Your task to perform on an android device: install app "Mercado Libre" Image 0: 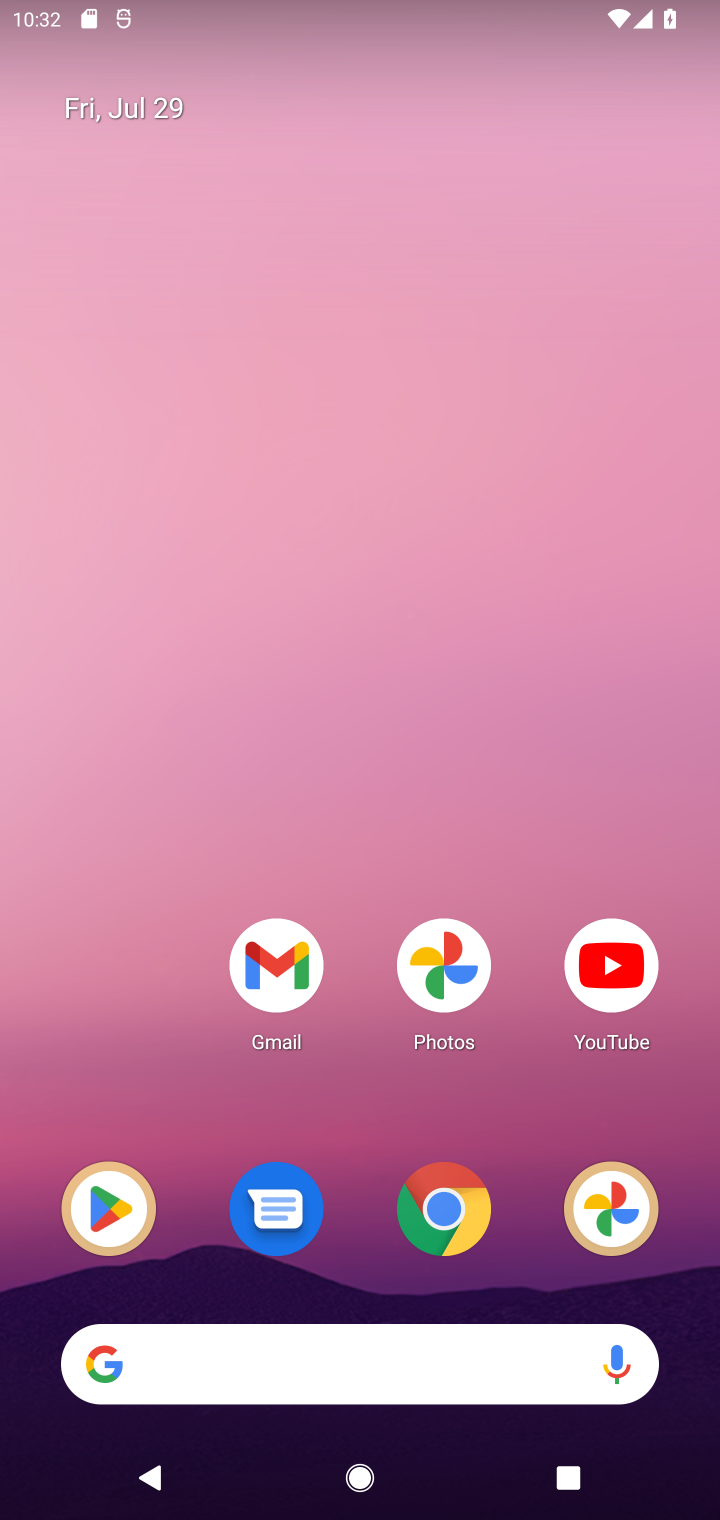
Step 0: drag from (521, 946) to (488, 182)
Your task to perform on an android device: install app "Mercado Libre" Image 1: 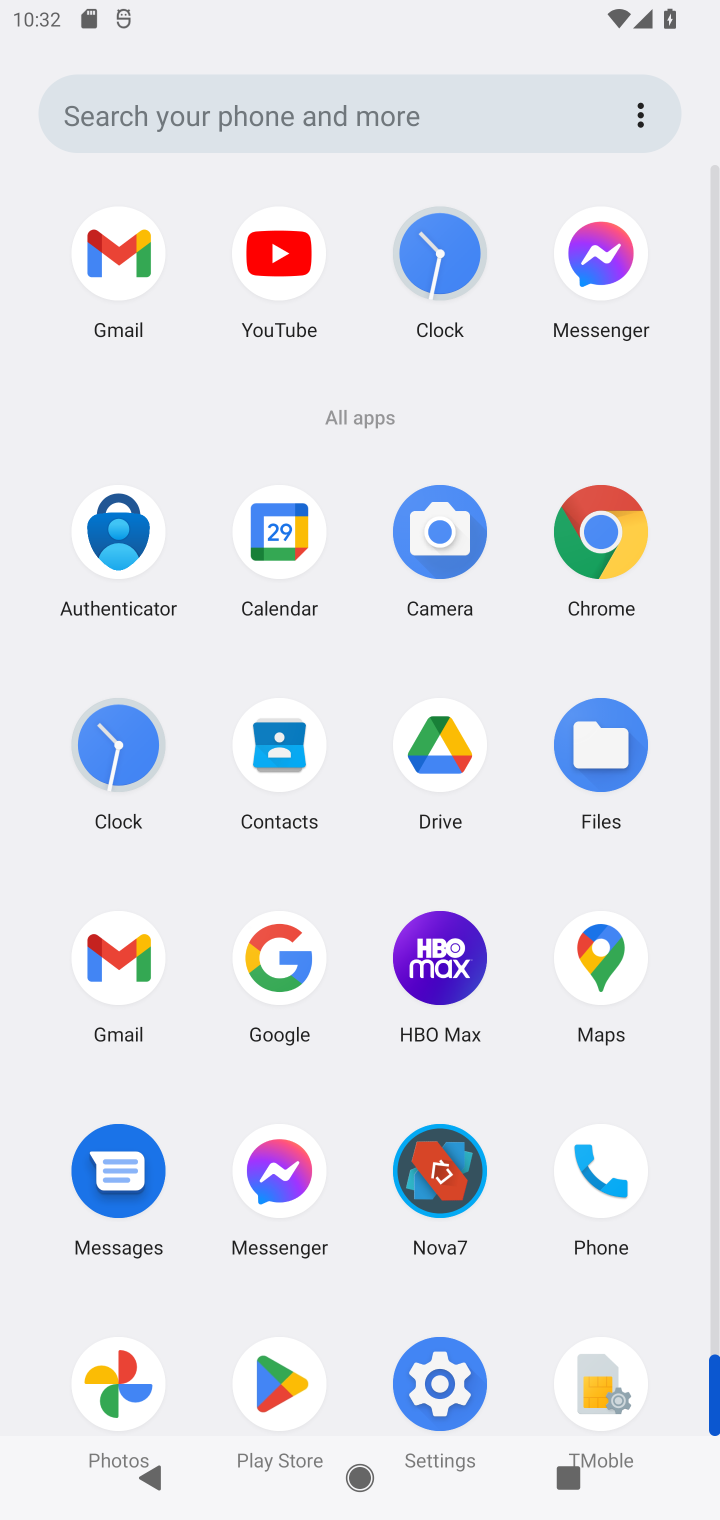
Step 1: click (279, 1384)
Your task to perform on an android device: install app "Mercado Libre" Image 2: 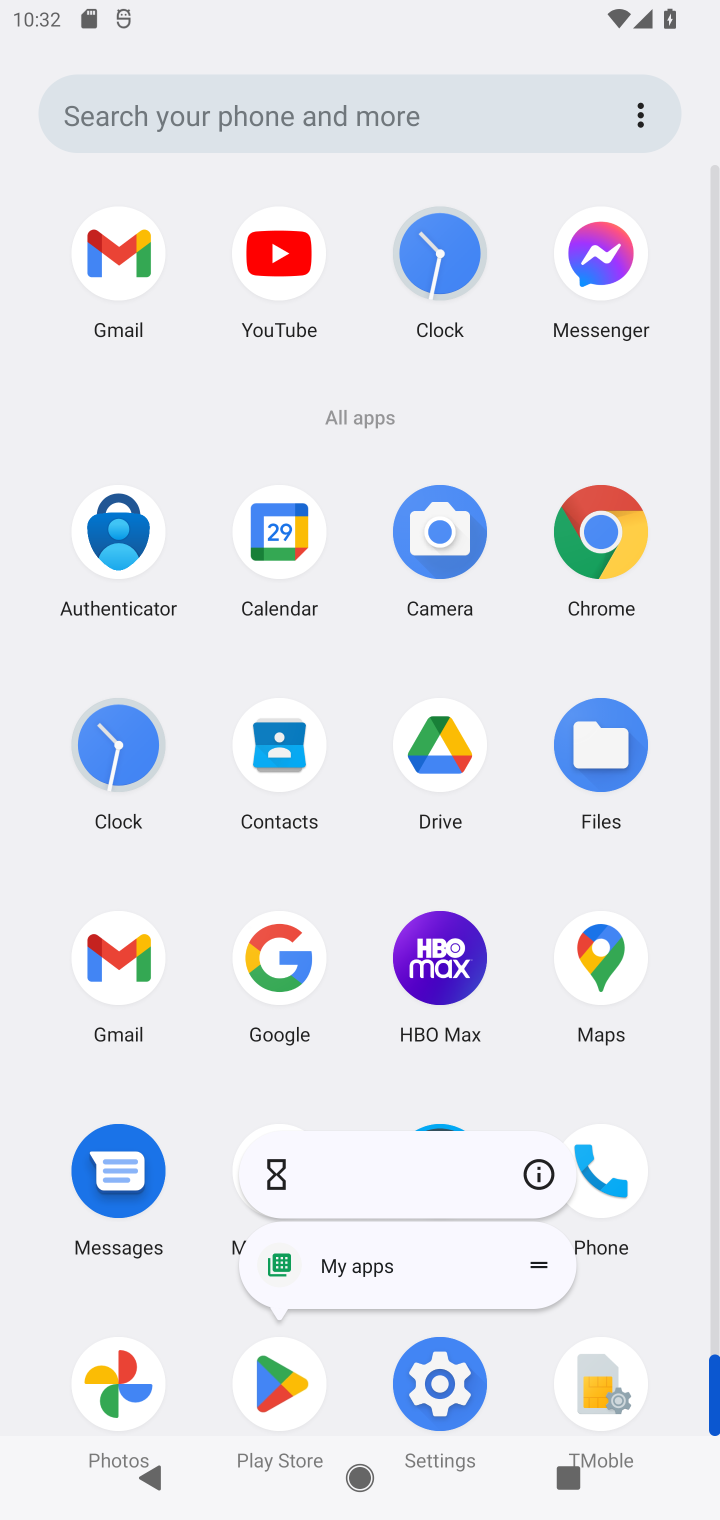
Step 2: click (270, 1360)
Your task to perform on an android device: install app "Mercado Libre" Image 3: 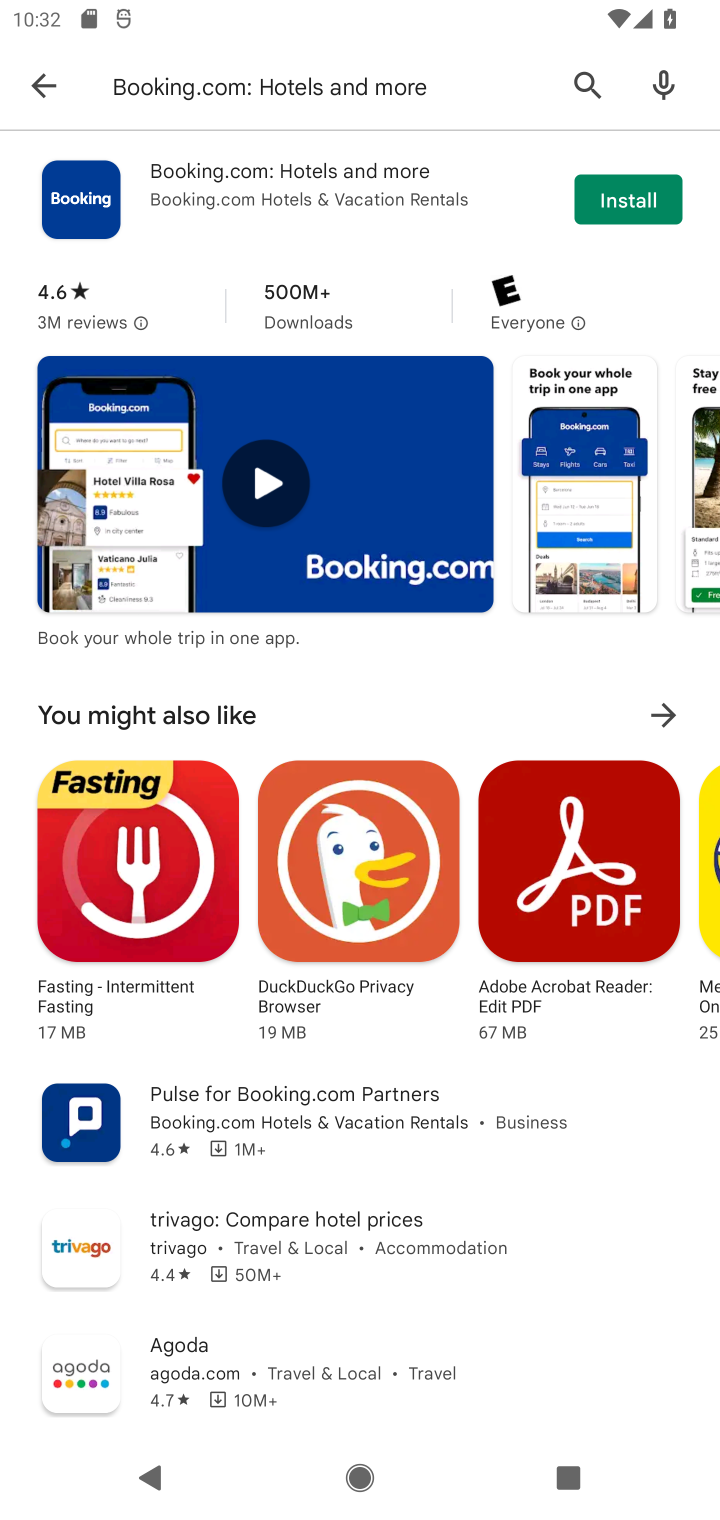
Step 3: click (439, 78)
Your task to perform on an android device: install app "Mercado Libre" Image 4: 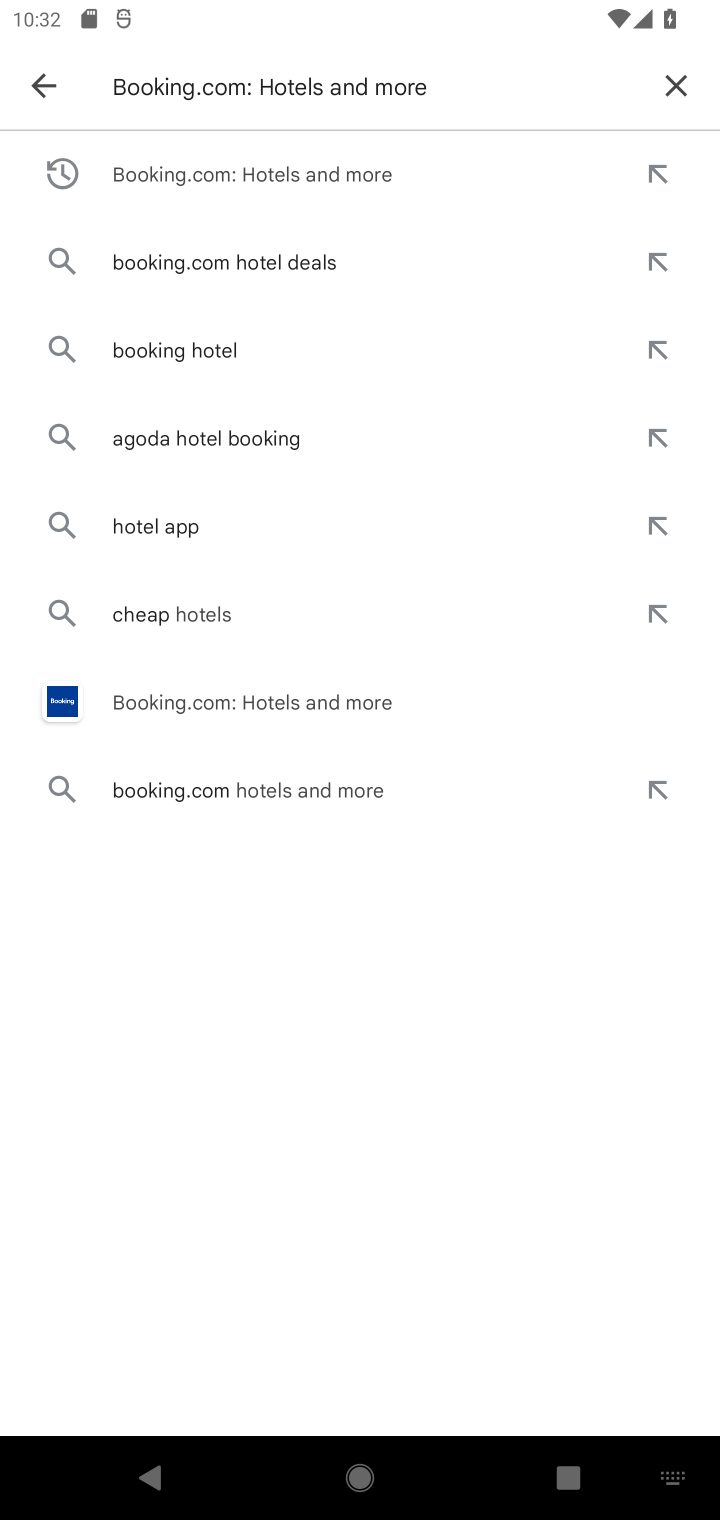
Step 4: click (685, 77)
Your task to perform on an android device: install app "Mercado Libre" Image 5: 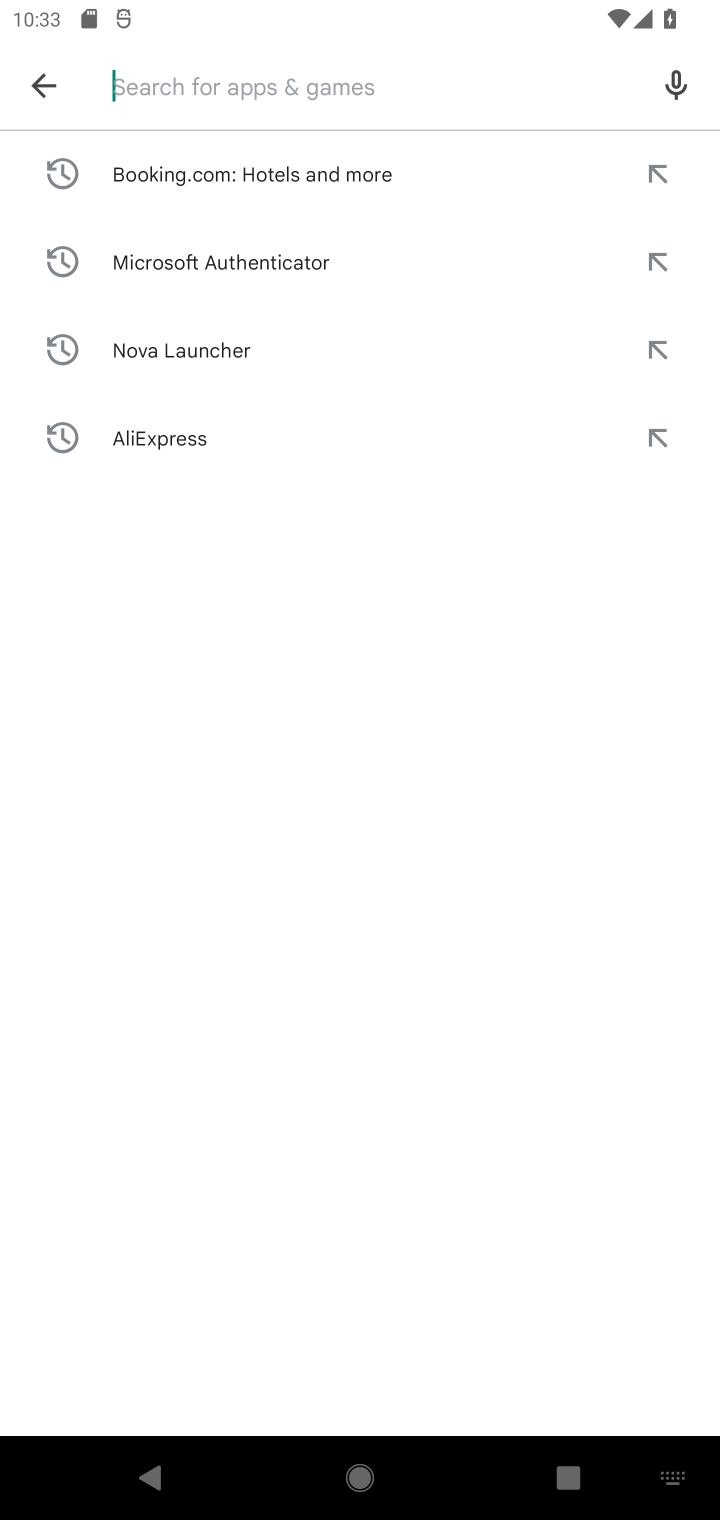
Step 5: type "Mercado libre"
Your task to perform on an android device: install app "Mercado Libre" Image 6: 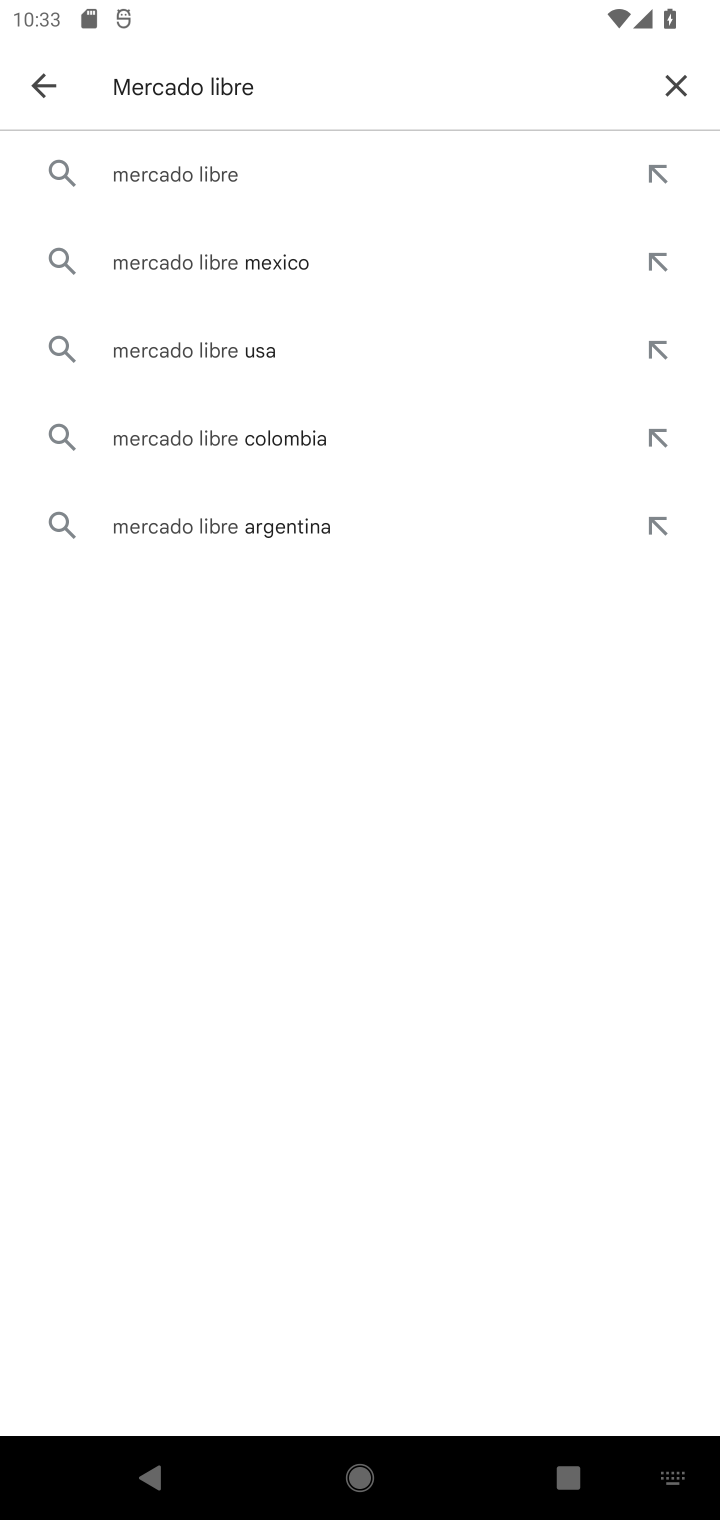
Step 6: press enter
Your task to perform on an android device: install app "Mercado Libre" Image 7: 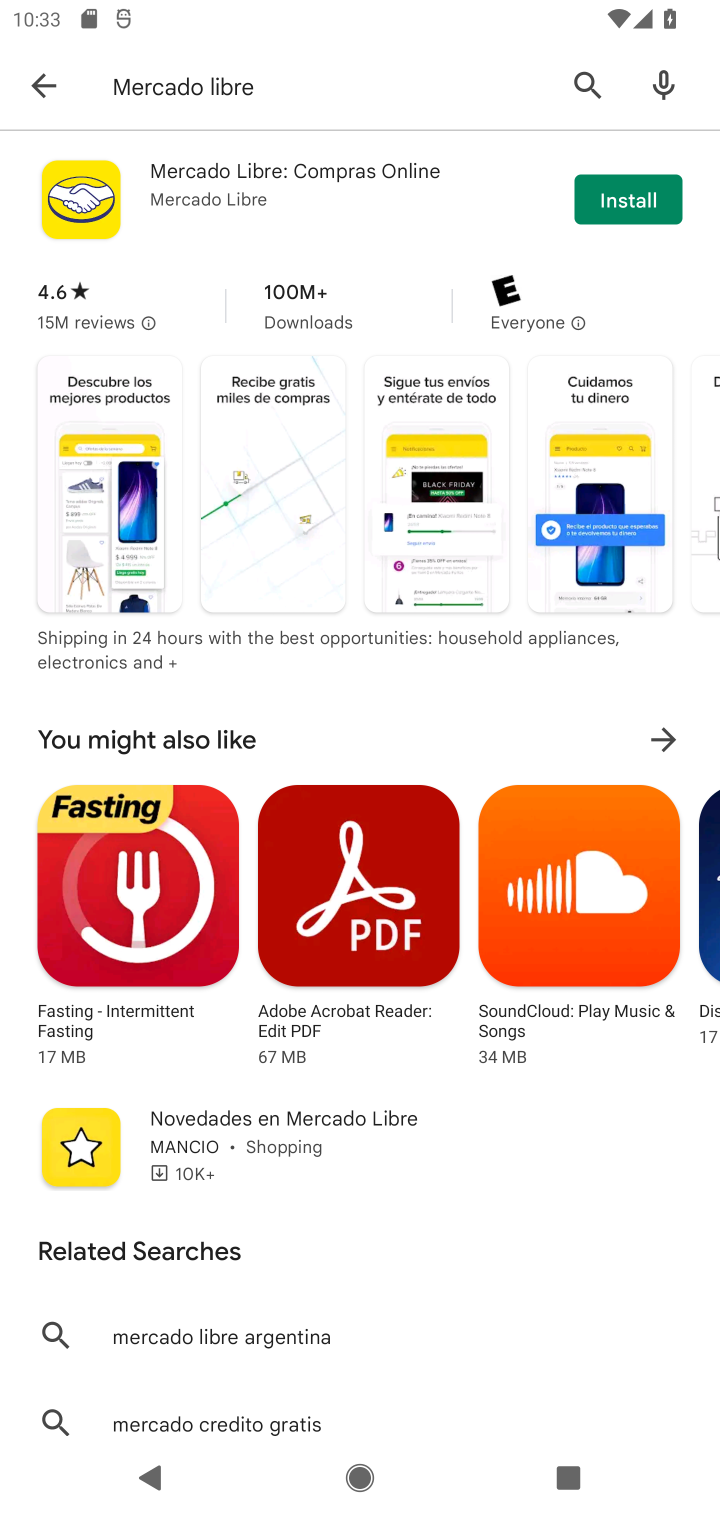
Step 7: click (614, 199)
Your task to perform on an android device: install app "Mercado Libre" Image 8: 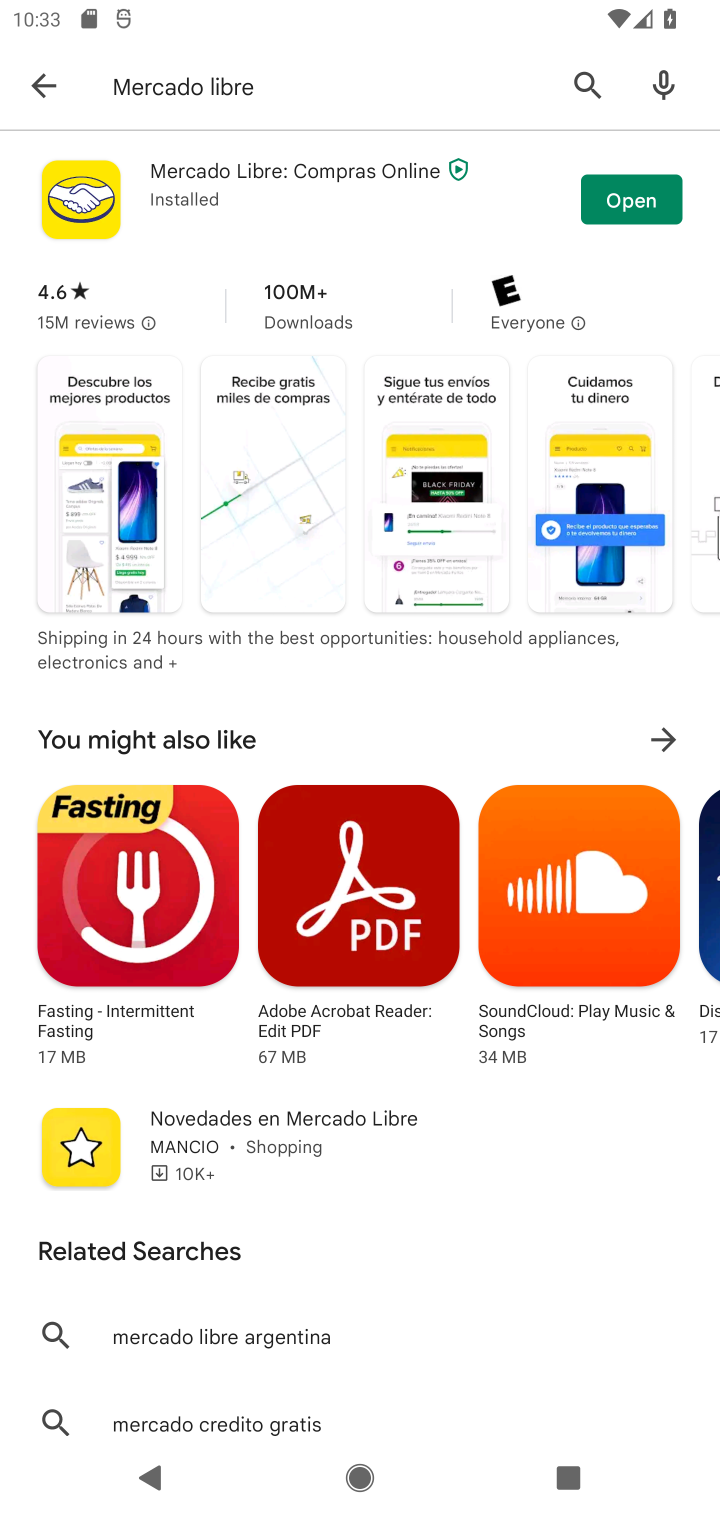
Step 8: task complete